Your task to perform on an android device: open app "AliExpress" (install if not already installed) Image 0: 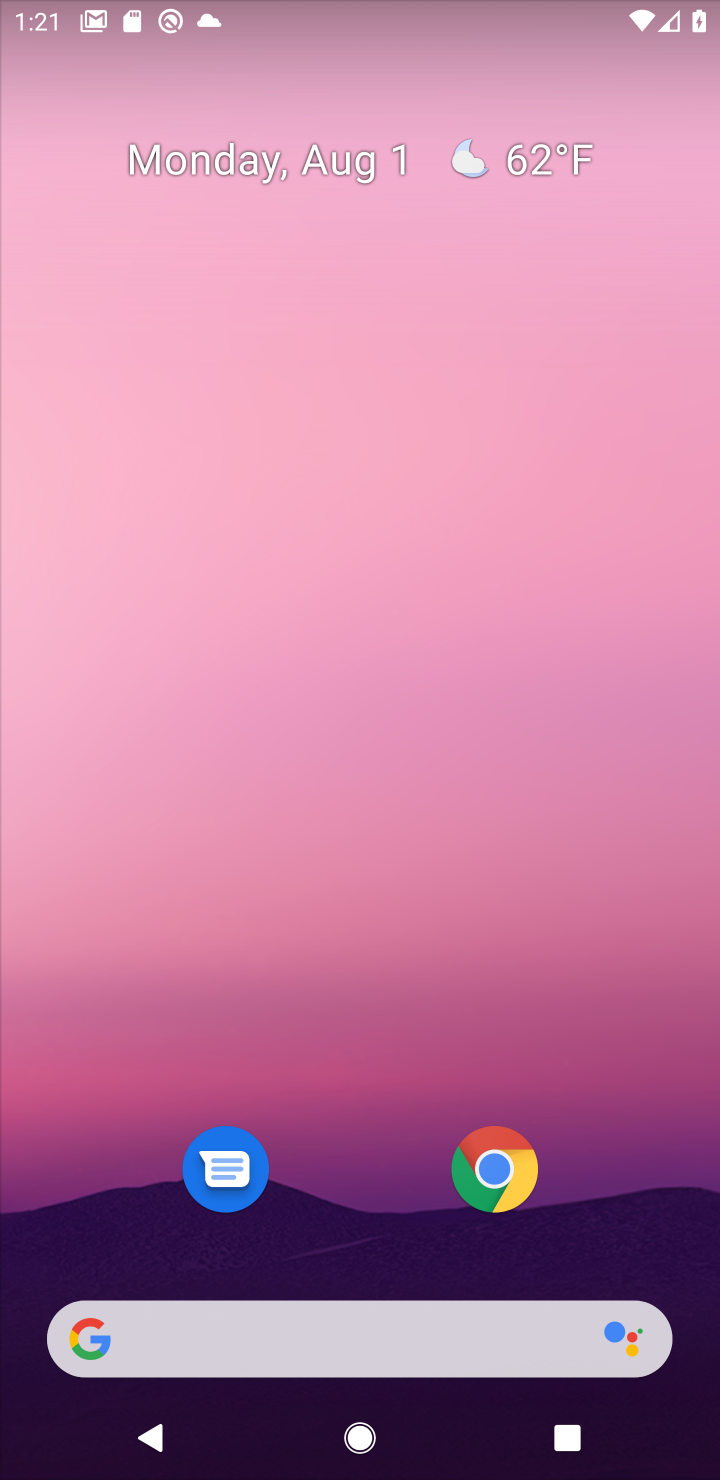
Step 0: drag from (370, 1043) to (503, 169)
Your task to perform on an android device: open app "AliExpress" (install if not already installed) Image 1: 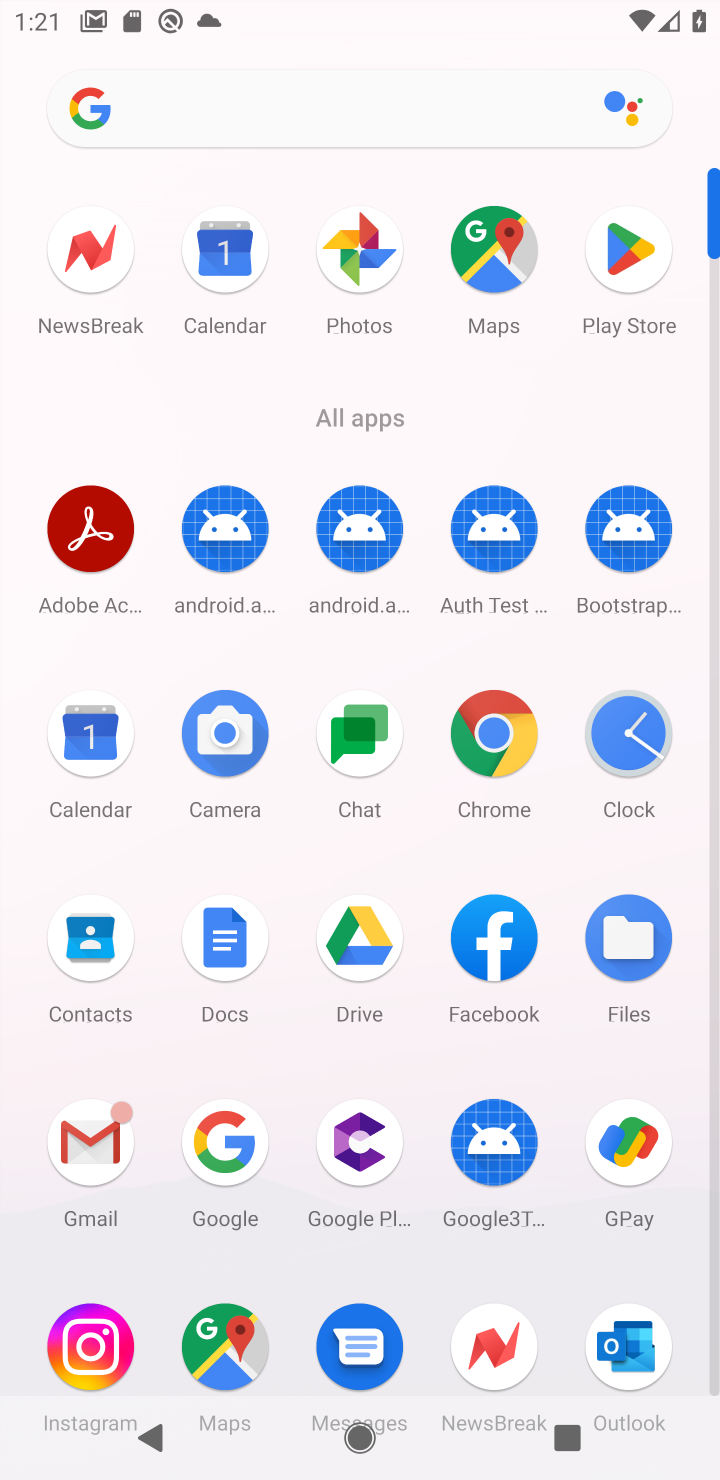
Step 1: click (616, 271)
Your task to perform on an android device: open app "AliExpress" (install if not already installed) Image 2: 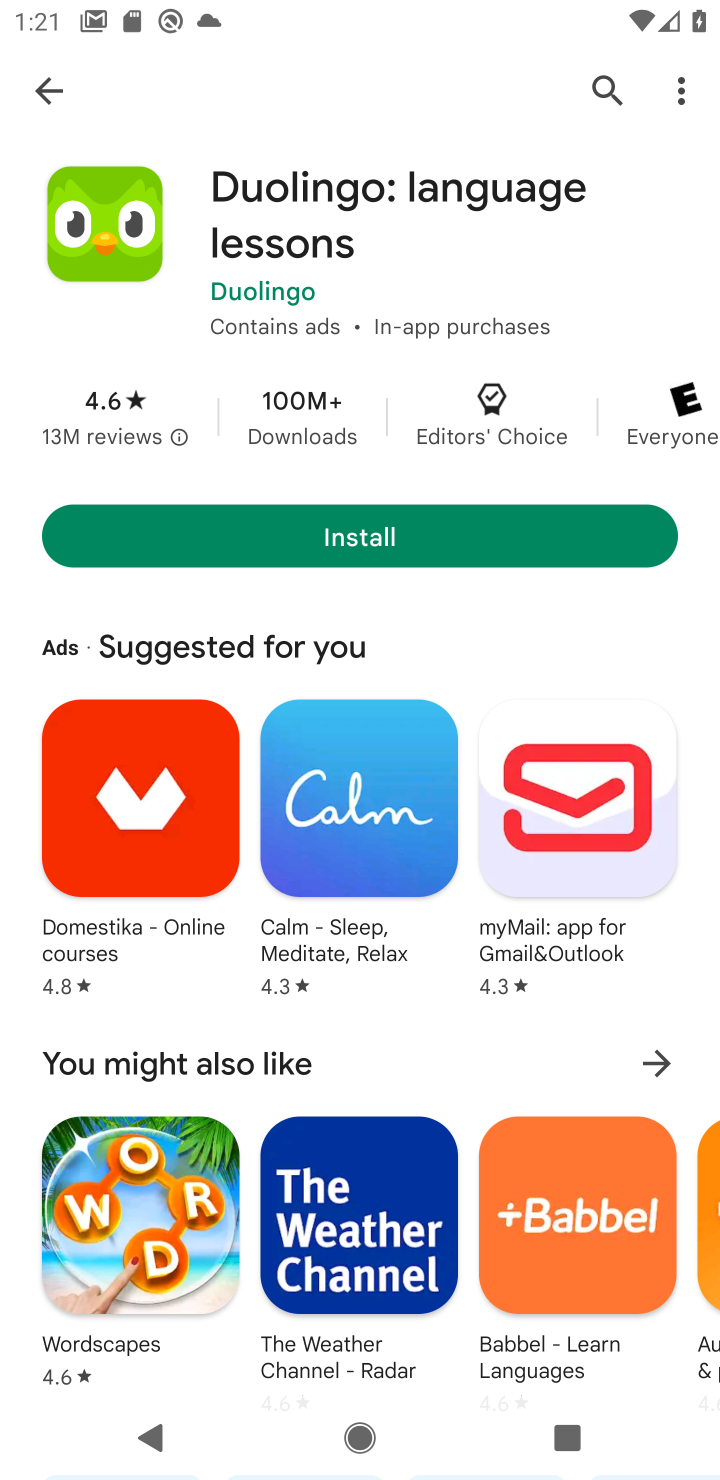
Step 2: click (45, 91)
Your task to perform on an android device: open app "AliExpress" (install if not already installed) Image 3: 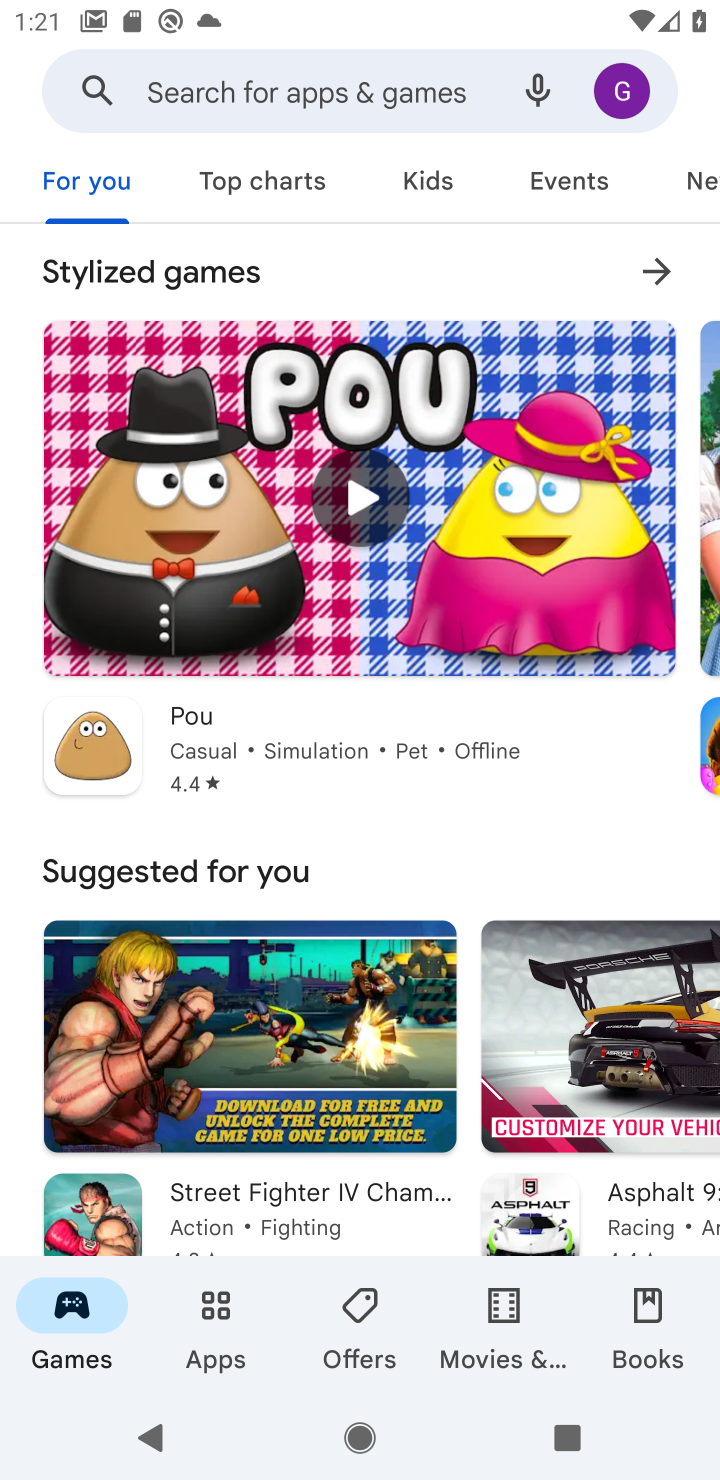
Step 3: click (230, 95)
Your task to perform on an android device: open app "AliExpress" (install if not already installed) Image 4: 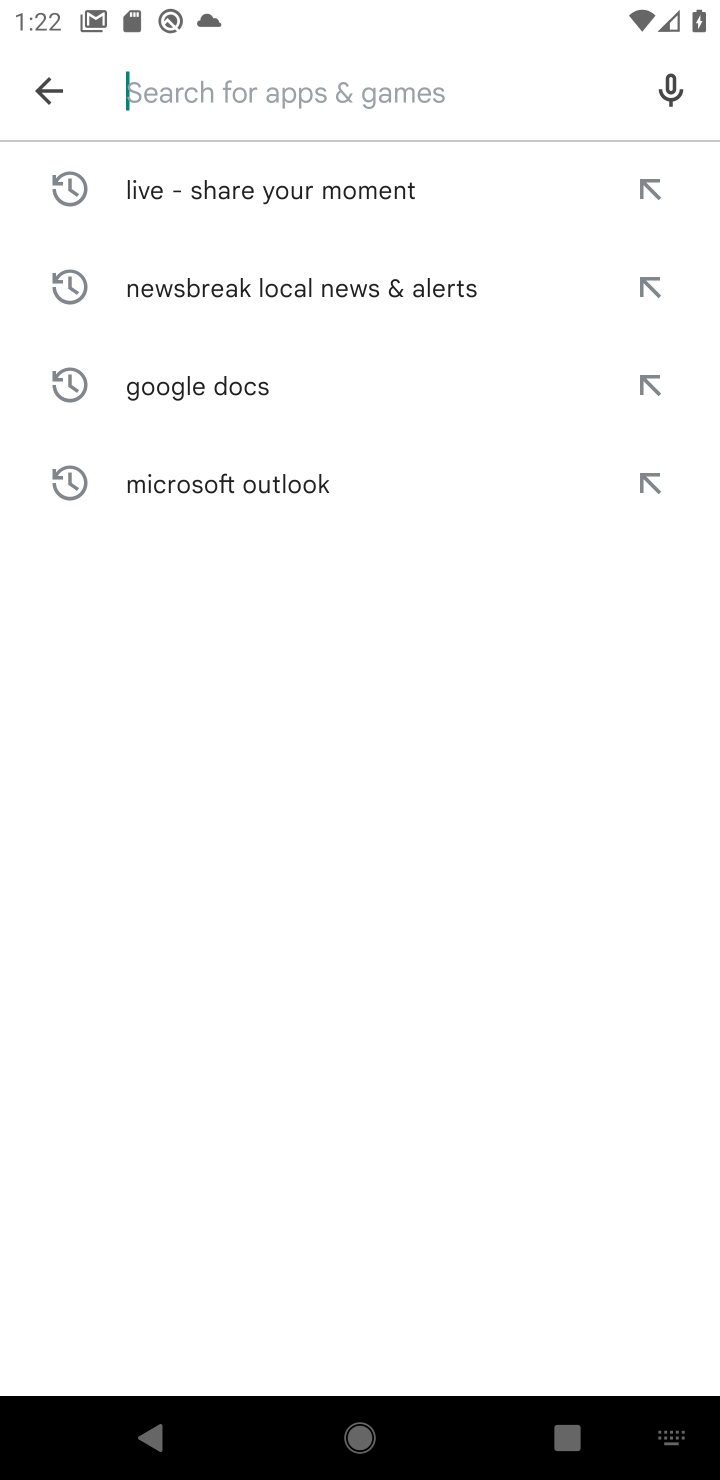
Step 4: type "AliExpress"
Your task to perform on an android device: open app "AliExpress" (install if not already installed) Image 5: 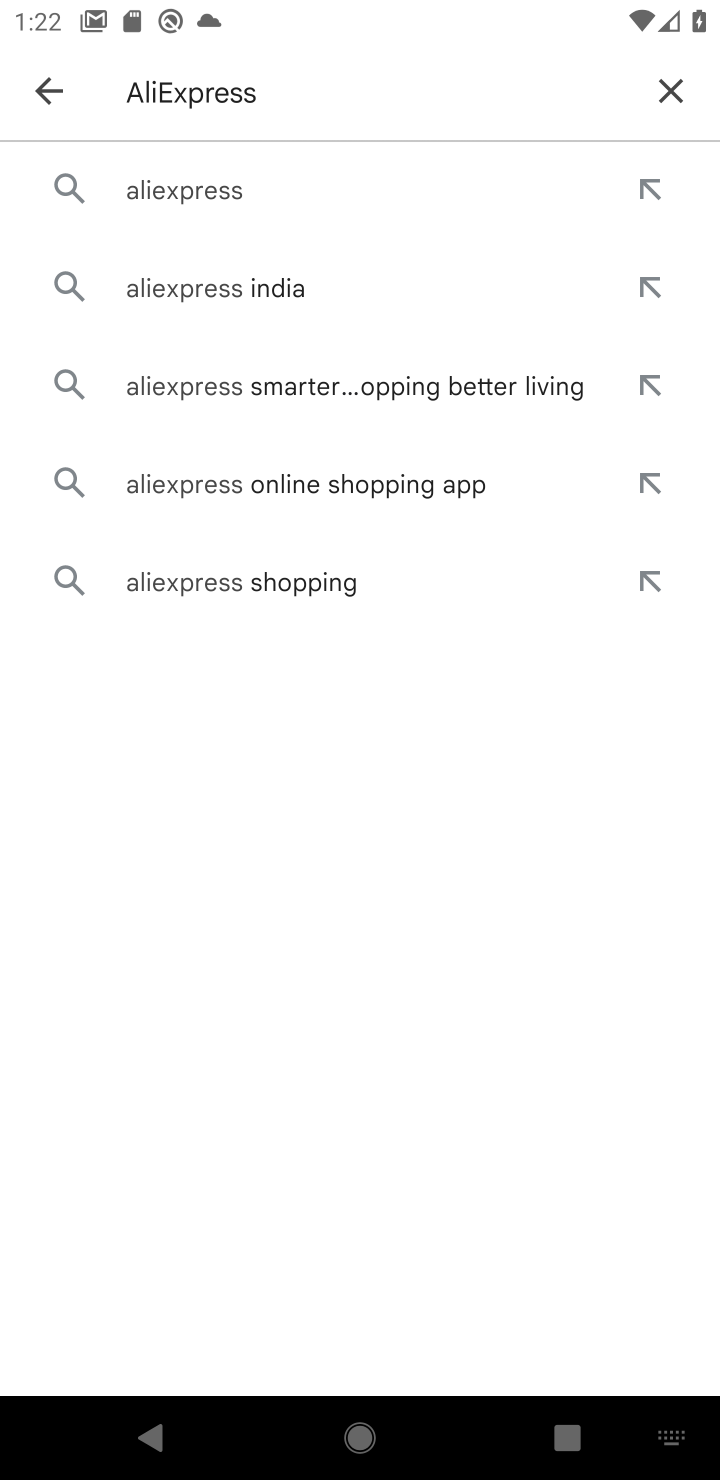
Step 5: click (239, 177)
Your task to perform on an android device: open app "AliExpress" (install if not already installed) Image 6: 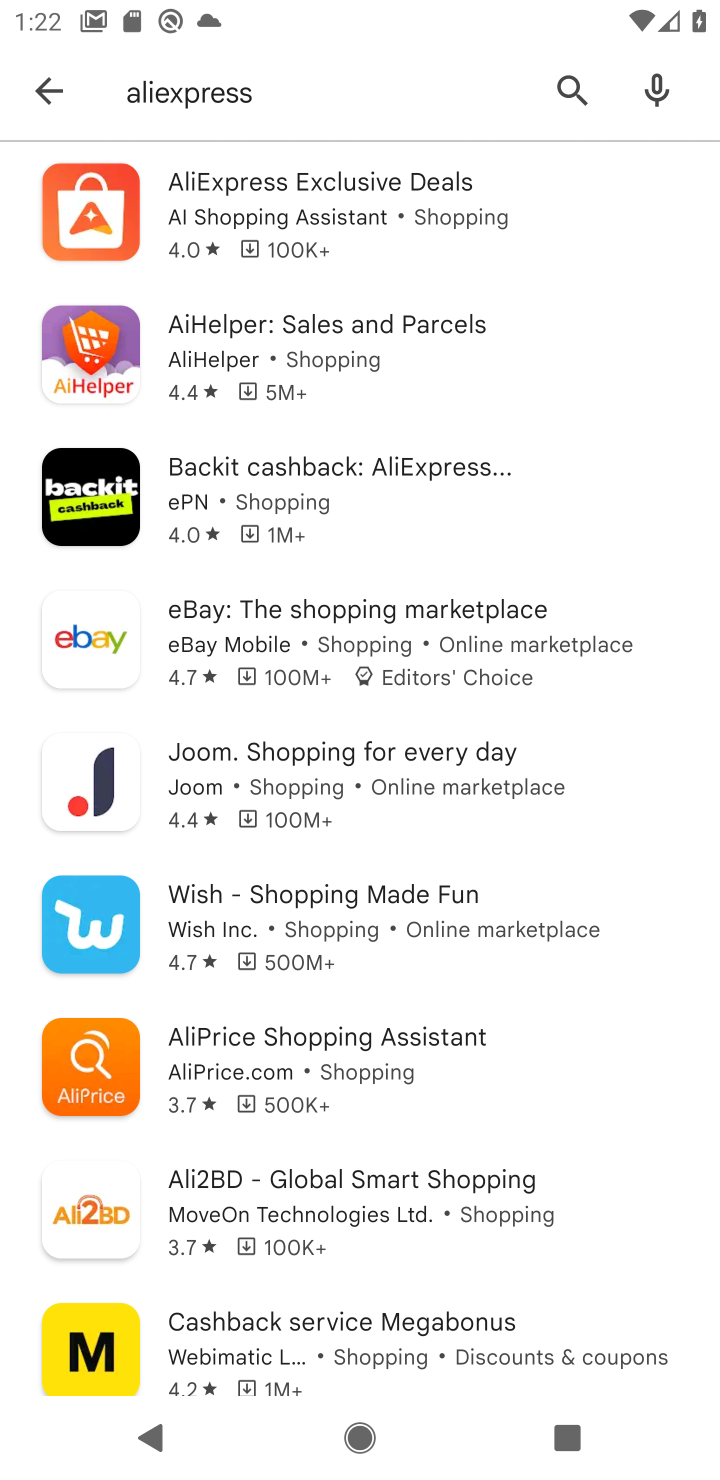
Step 6: click (305, 213)
Your task to perform on an android device: open app "AliExpress" (install if not already installed) Image 7: 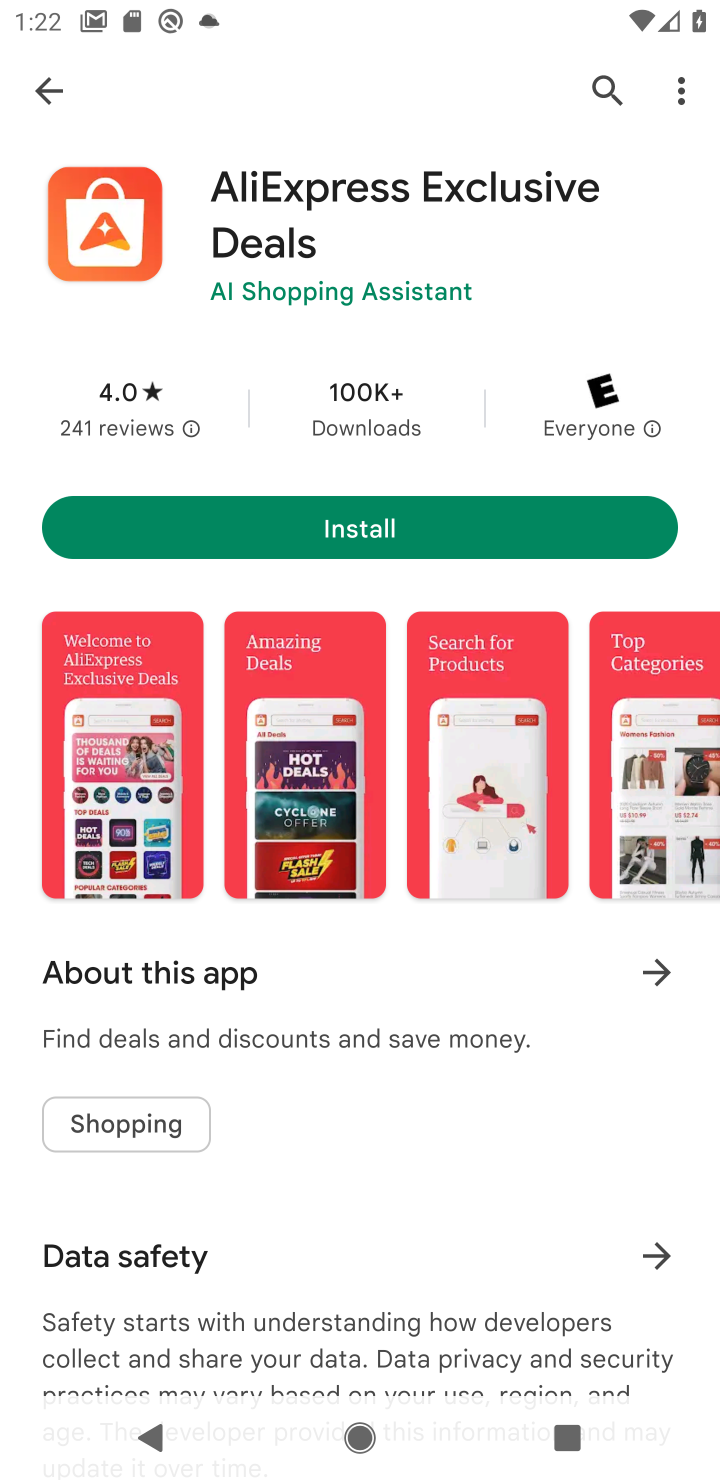
Step 7: click (329, 503)
Your task to perform on an android device: open app "AliExpress" (install if not already installed) Image 8: 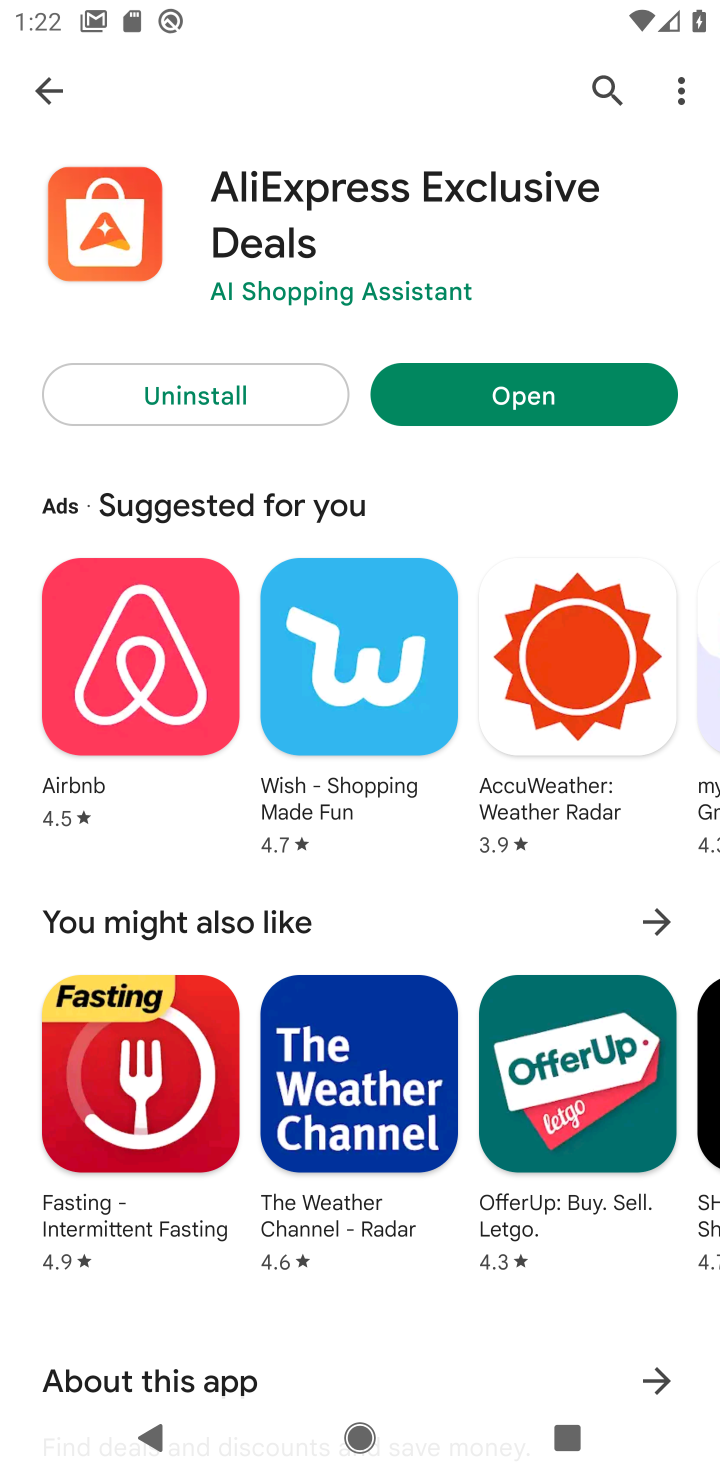
Step 8: click (523, 388)
Your task to perform on an android device: open app "AliExpress" (install if not already installed) Image 9: 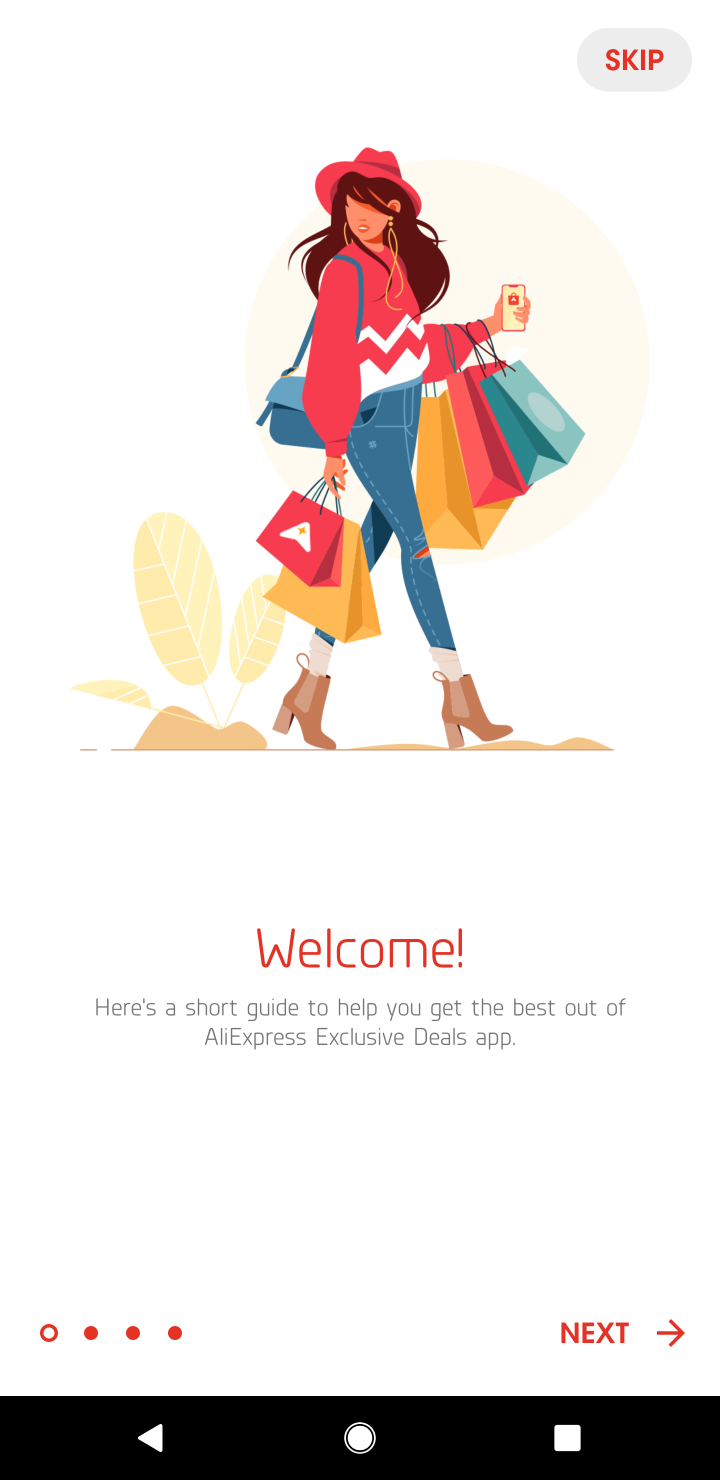
Step 9: task complete